Your task to perform on an android device: Show the shopping cart on bestbuy. Add "razer deathadder" to the cart on bestbuy, then select checkout. Image 0: 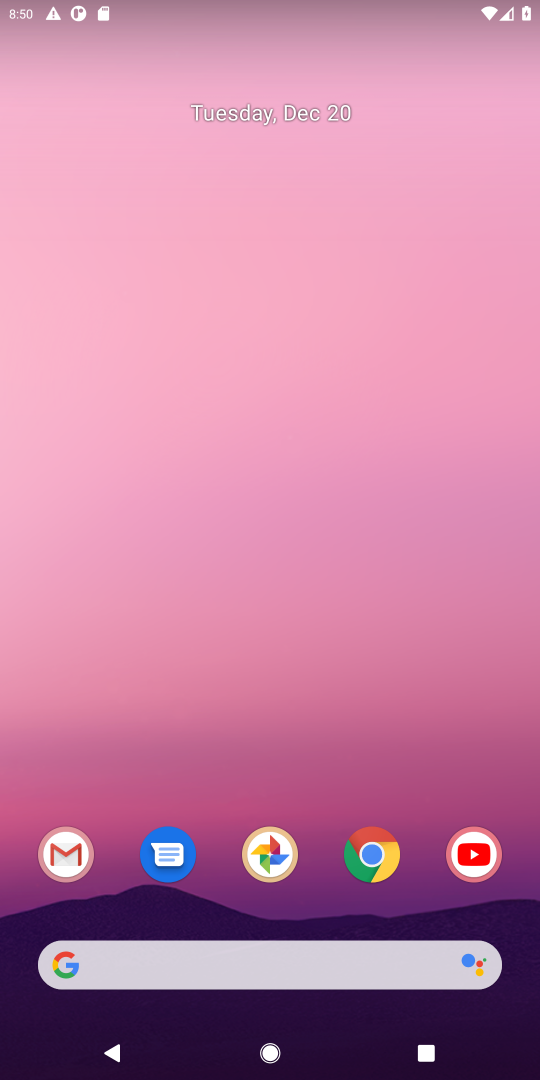
Step 0: click (370, 863)
Your task to perform on an android device: Show the shopping cart on bestbuy. Add "razer deathadder" to the cart on bestbuy, then select checkout. Image 1: 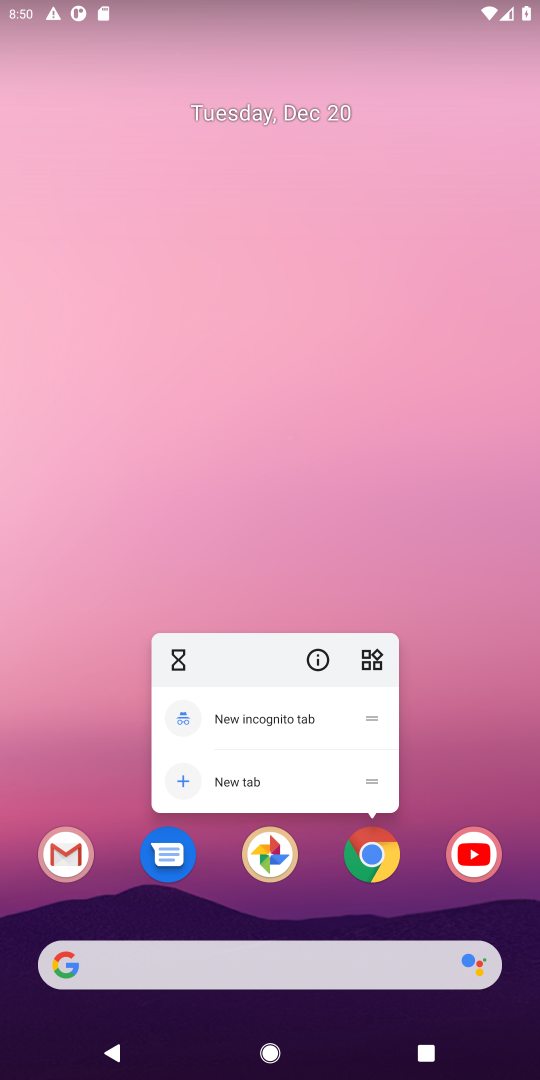
Step 1: click (378, 862)
Your task to perform on an android device: Show the shopping cart on bestbuy. Add "razer deathadder" to the cart on bestbuy, then select checkout. Image 2: 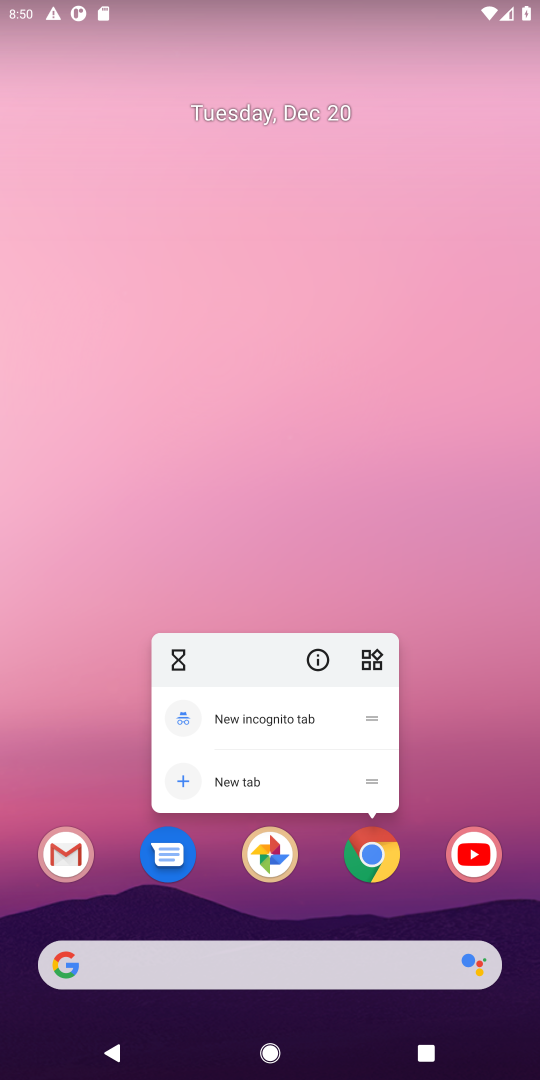
Step 2: click (378, 862)
Your task to perform on an android device: Show the shopping cart on bestbuy. Add "razer deathadder" to the cart on bestbuy, then select checkout. Image 3: 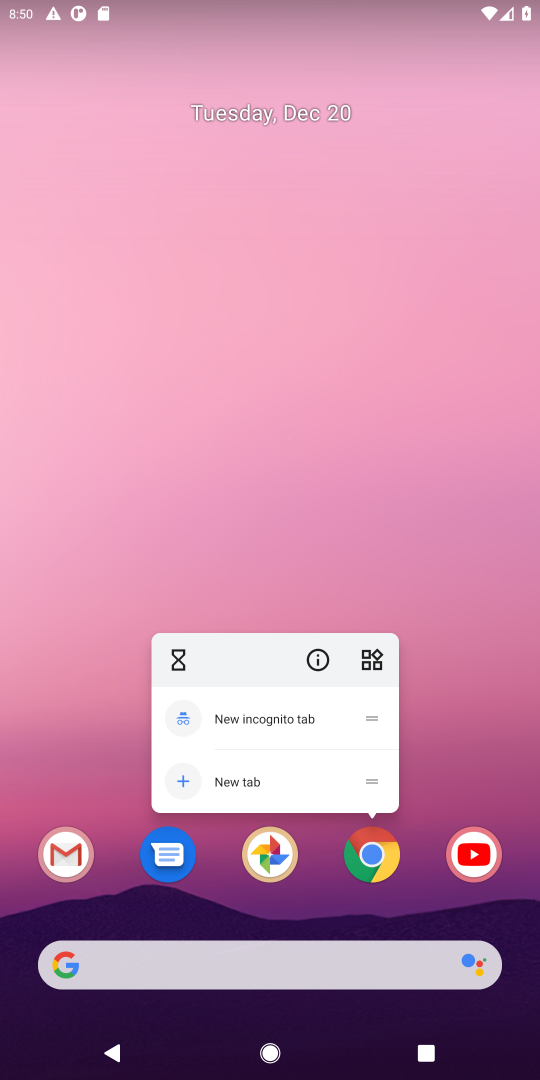
Step 3: click (378, 862)
Your task to perform on an android device: Show the shopping cart on bestbuy. Add "razer deathadder" to the cart on bestbuy, then select checkout. Image 4: 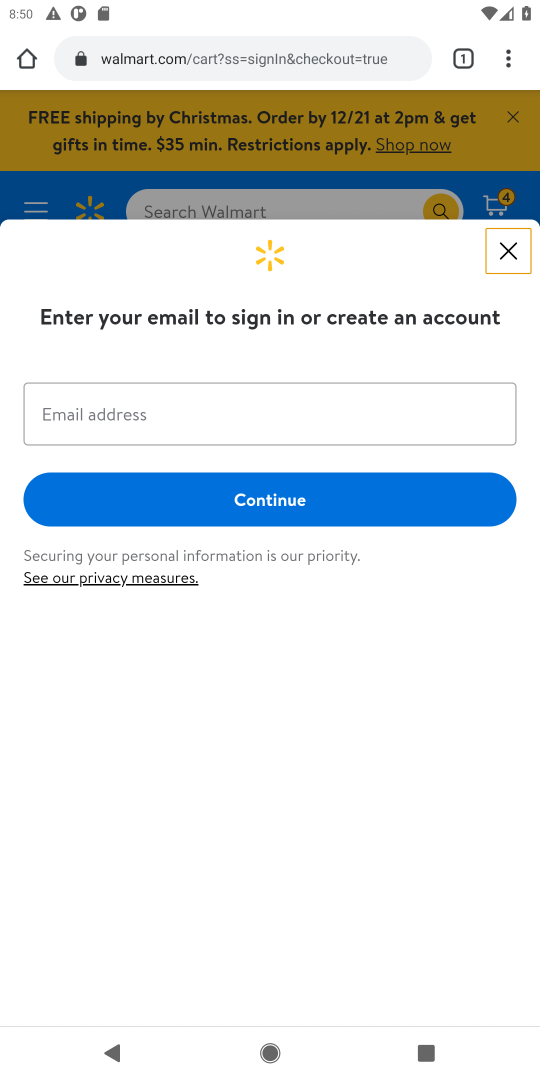
Step 4: click (198, 63)
Your task to perform on an android device: Show the shopping cart on bestbuy. Add "razer deathadder" to the cart on bestbuy, then select checkout. Image 5: 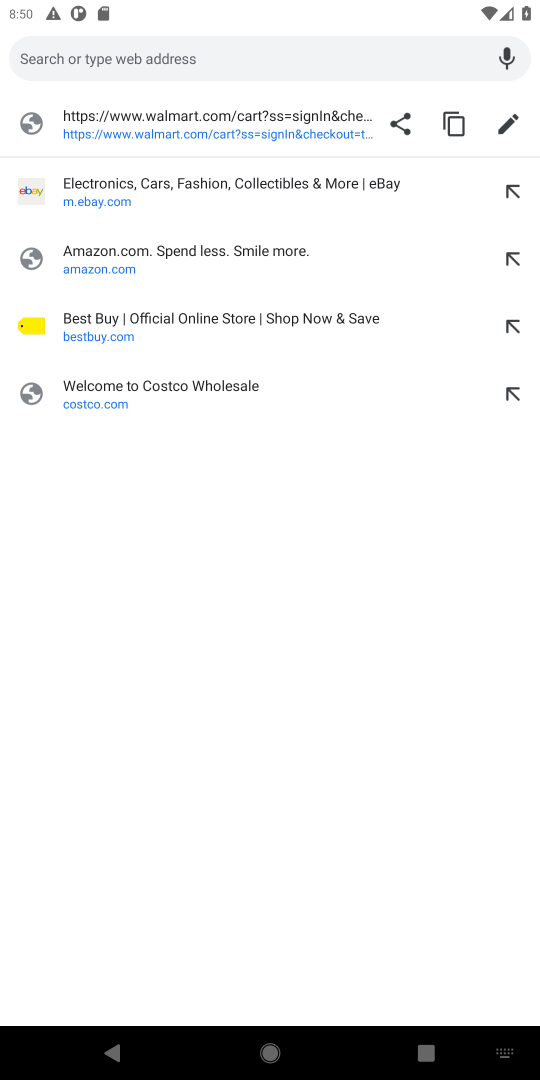
Step 5: click (94, 327)
Your task to perform on an android device: Show the shopping cart on bestbuy. Add "razer deathadder" to the cart on bestbuy, then select checkout. Image 6: 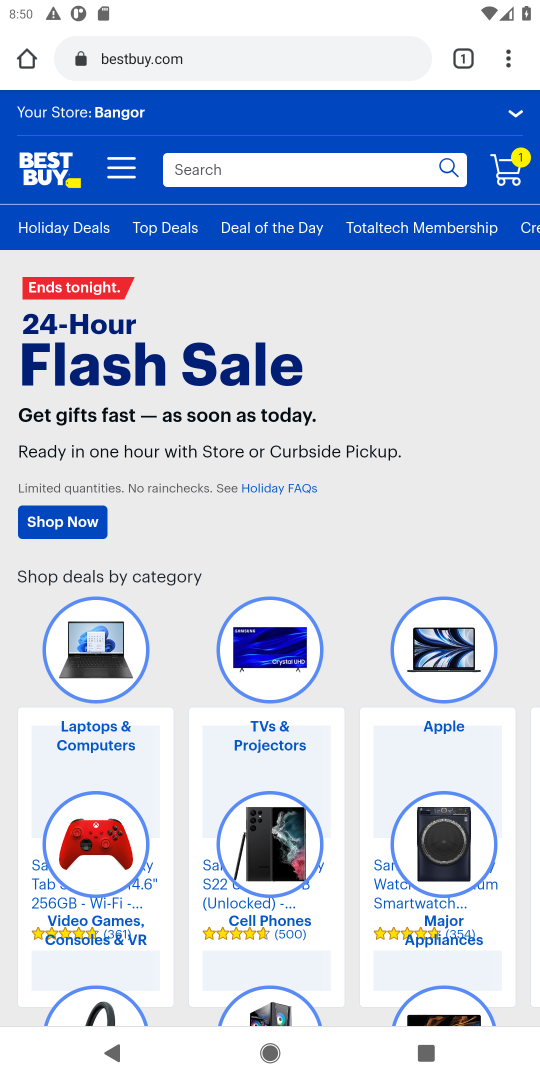
Step 6: click (505, 175)
Your task to perform on an android device: Show the shopping cart on bestbuy. Add "razer deathadder" to the cart on bestbuy, then select checkout. Image 7: 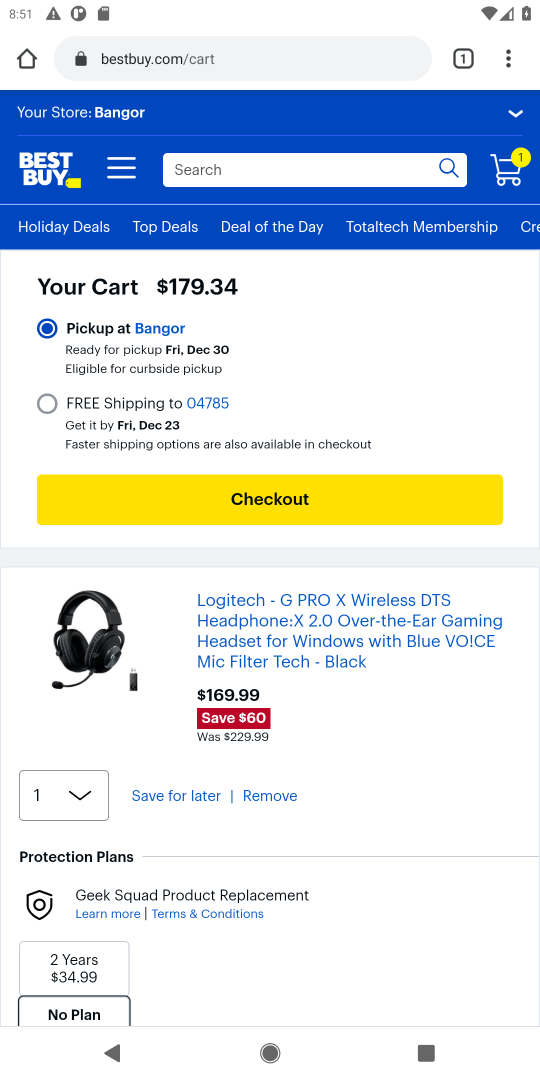
Step 7: click (311, 177)
Your task to perform on an android device: Show the shopping cart on bestbuy. Add "razer deathadder" to the cart on bestbuy, then select checkout. Image 8: 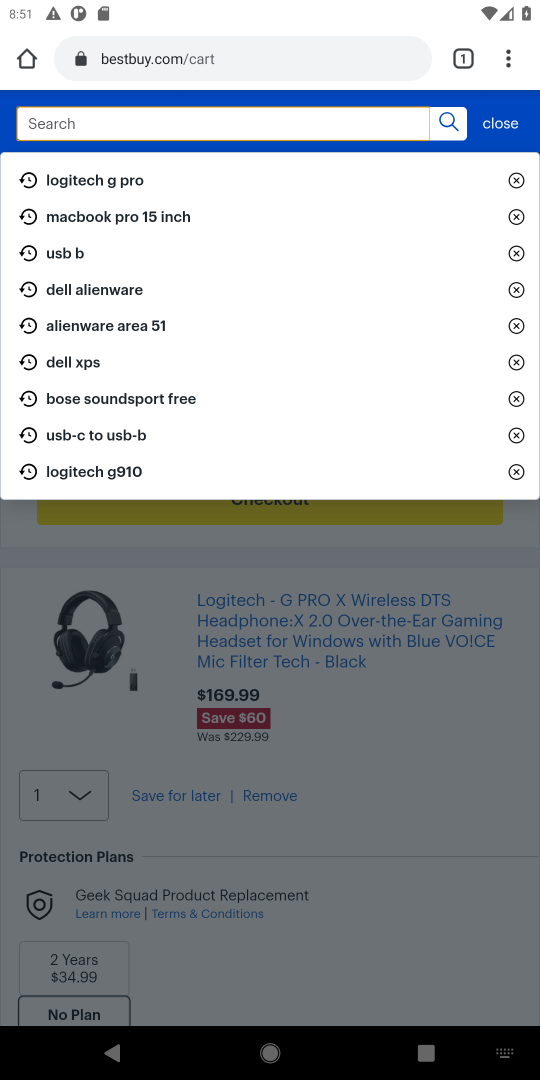
Step 8: type "razer deathadder"
Your task to perform on an android device: Show the shopping cart on bestbuy. Add "razer deathadder" to the cart on bestbuy, then select checkout. Image 9: 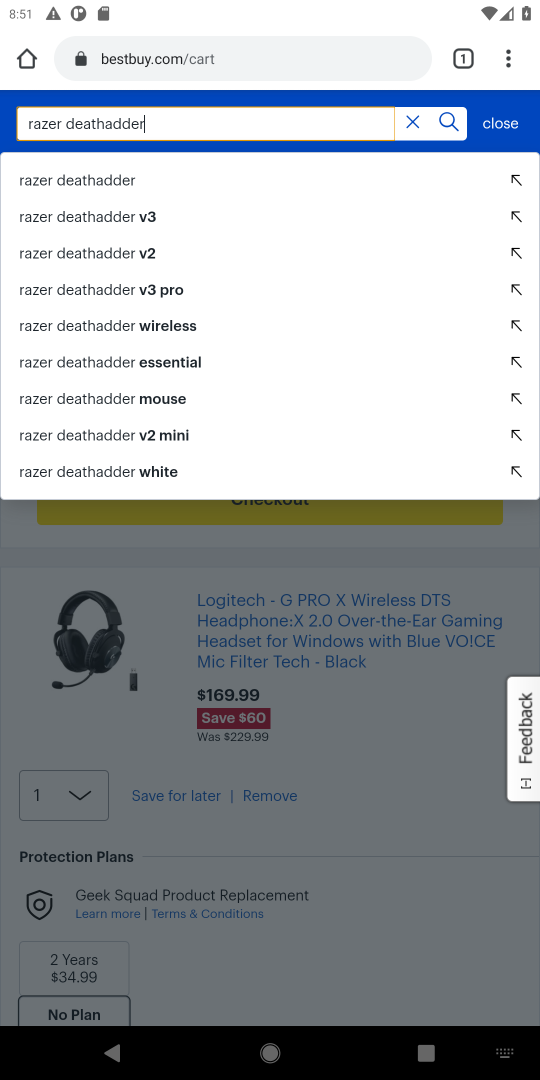
Step 9: click (87, 187)
Your task to perform on an android device: Show the shopping cart on bestbuy. Add "razer deathadder" to the cart on bestbuy, then select checkout. Image 10: 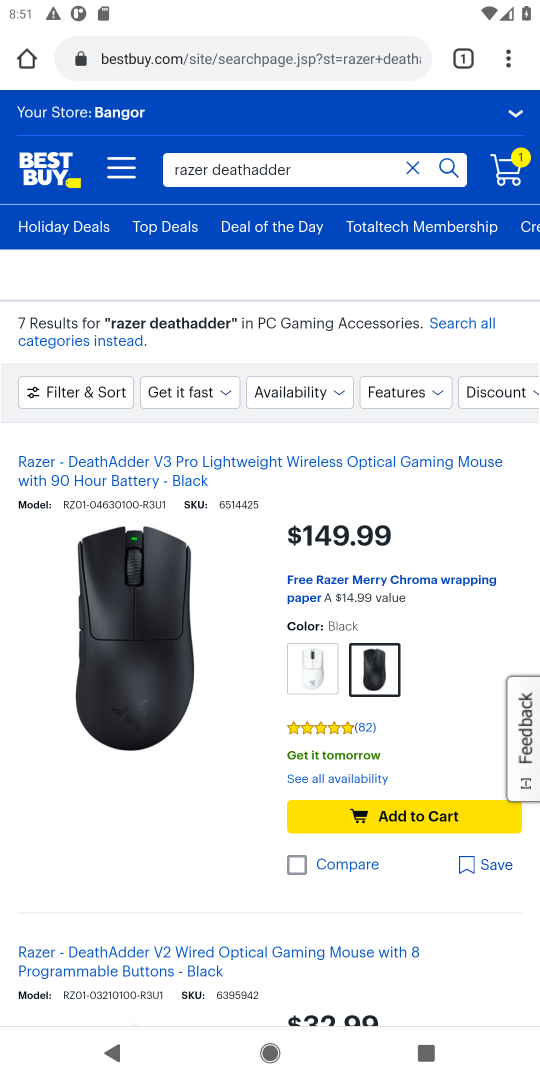
Step 10: click (367, 818)
Your task to perform on an android device: Show the shopping cart on bestbuy. Add "razer deathadder" to the cart on bestbuy, then select checkout. Image 11: 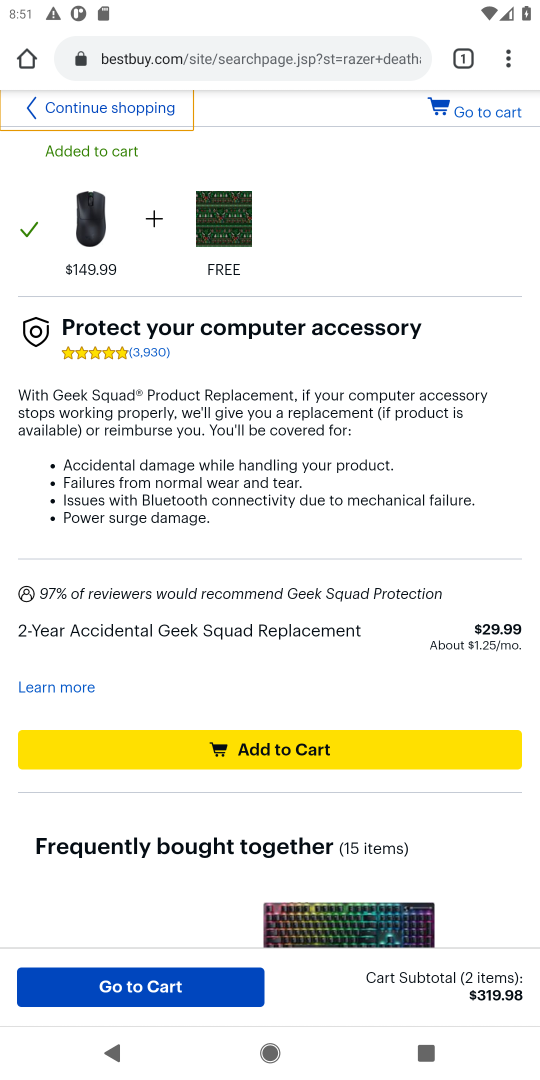
Step 11: click (488, 118)
Your task to perform on an android device: Show the shopping cart on bestbuy. Add "razer deathadder" to the cart on bestbuy, then select checkout. Image 12: 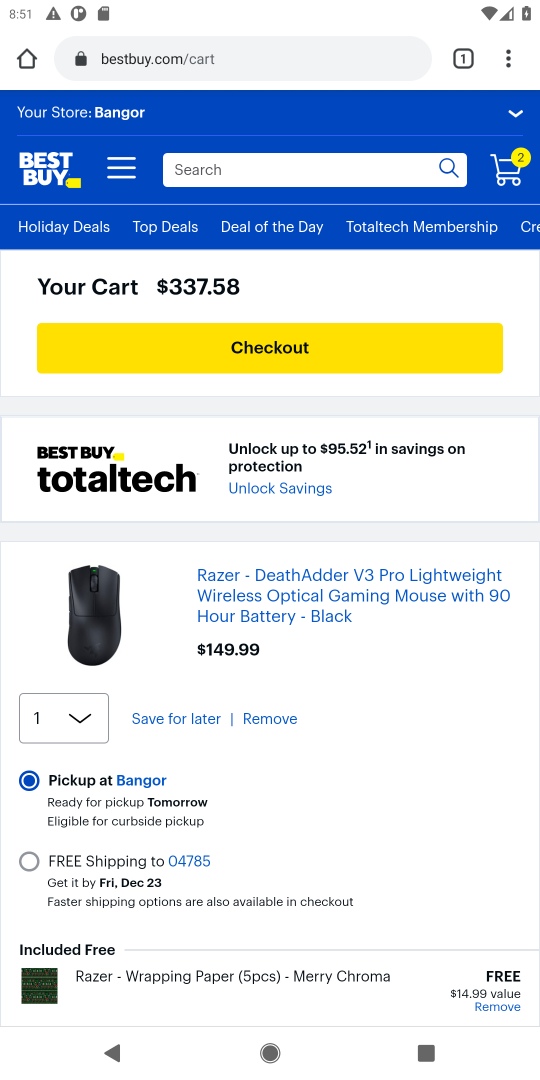
Step 12: click (264, 348)
Your task to perform on an android device: Show the shopping cart on bestbuy. Add "razer deathadder" to the cart on bestbuy, then select checkout. Image 13: 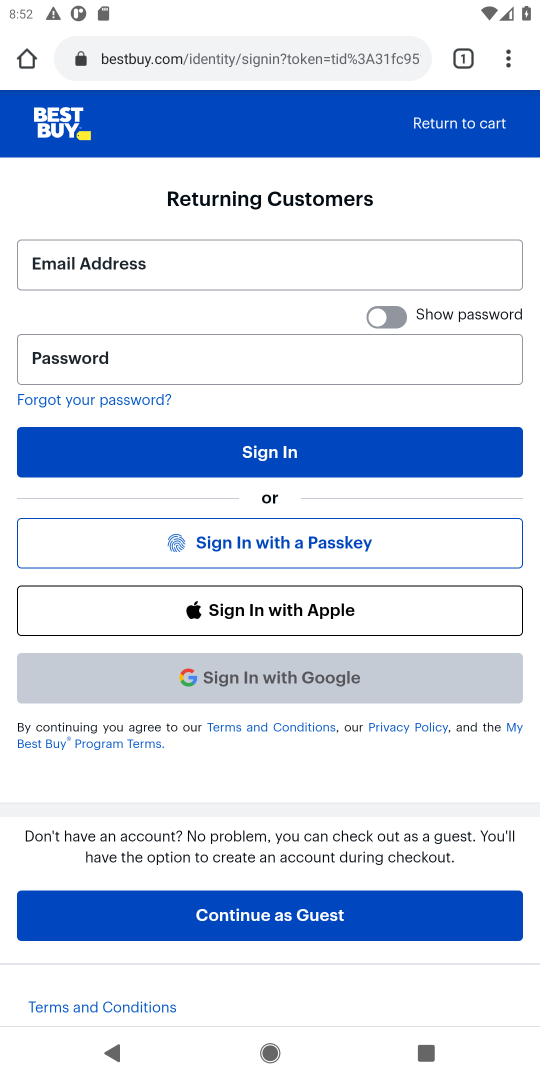
Step 13: task complete